Your task to perform on an android device: Search for the best 4K TV Image 0: 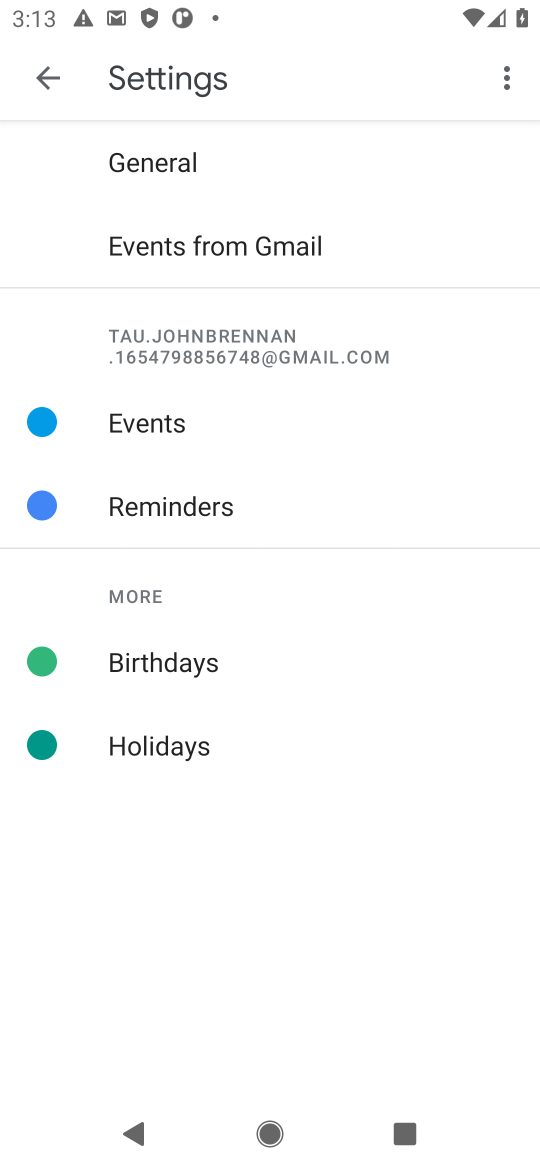
Step 0: press home button
Your task to perform on an android device: Search for the best 4K TV Image 1: 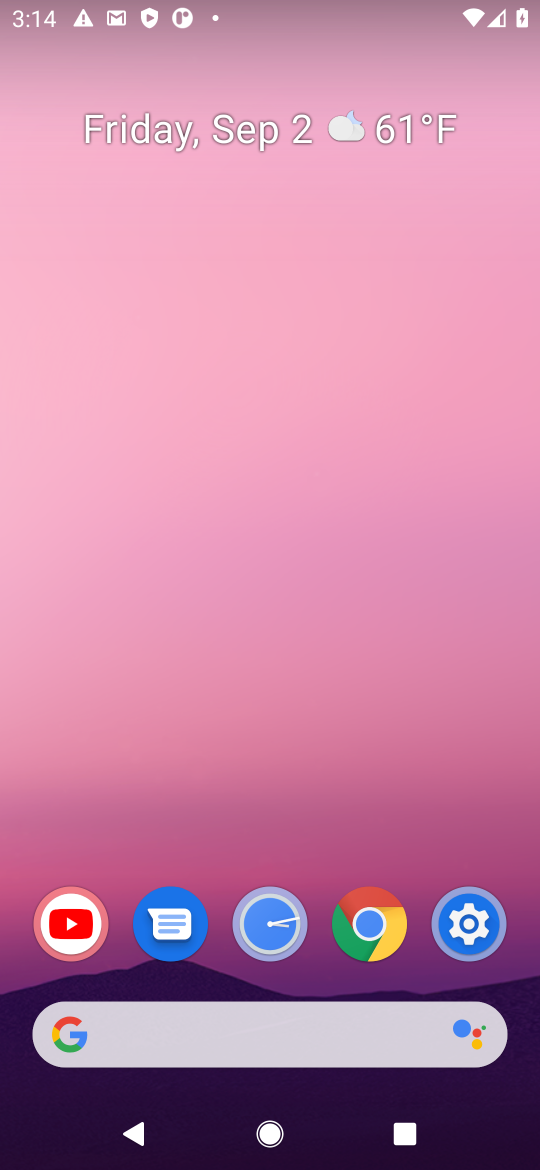
Step 1: click (367, 1046)
Your task to perform on an android device: Search for the best 4K TV Image 2: 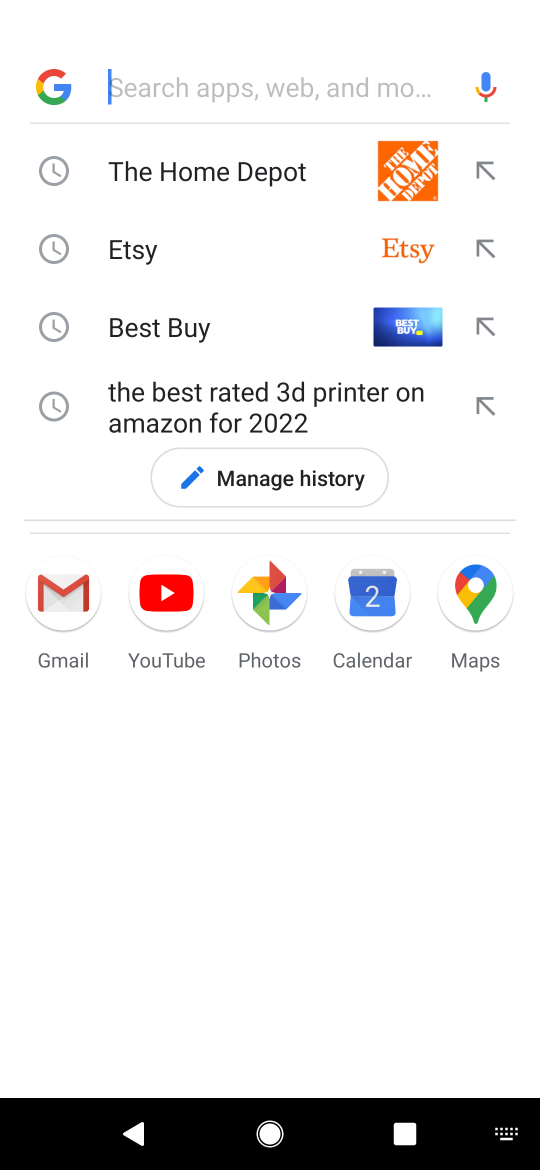
Step 2: press enter
Your task to perform on an android device: Search for the best 4K TV Image 3: 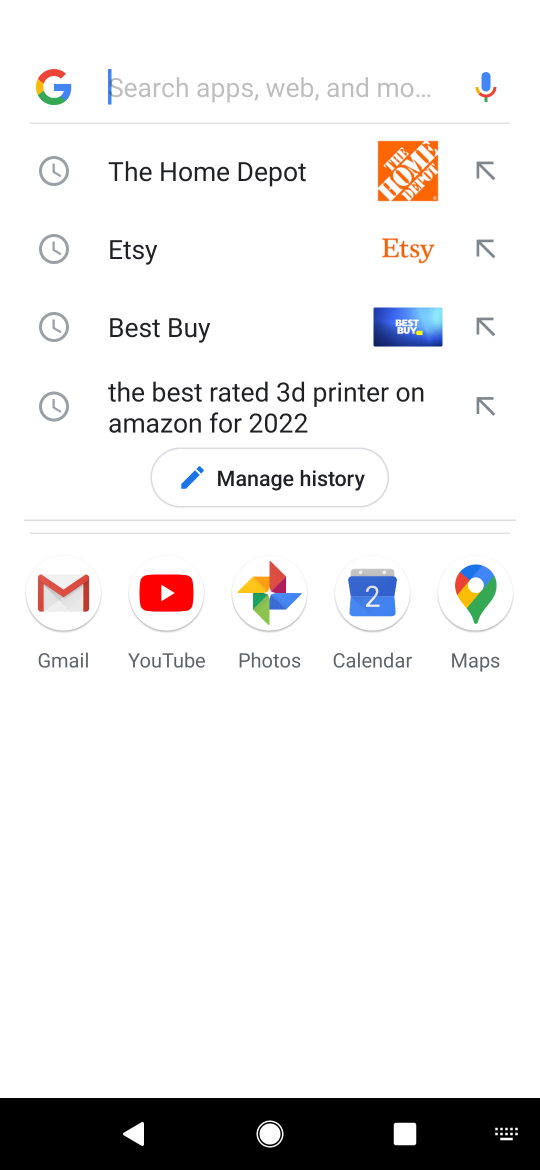
Step 3: type "best 4k tv"
Your task to perform on an android device: Search for the best 4K TV Image 4: 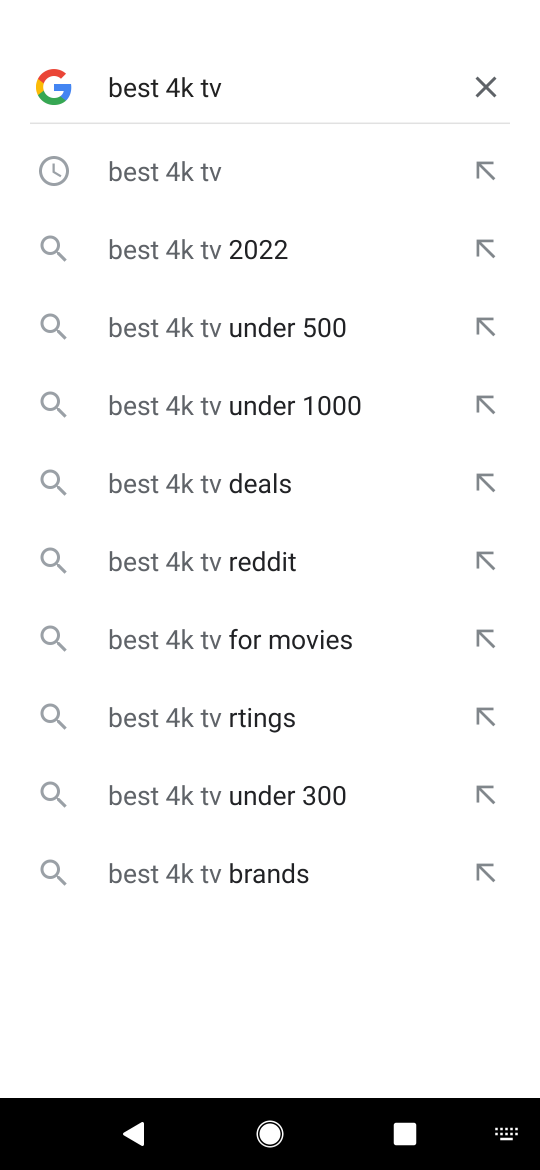
Step 4: click (209, 163)
Your task to perform on an android device: Search for the best 4K TV Image 5: 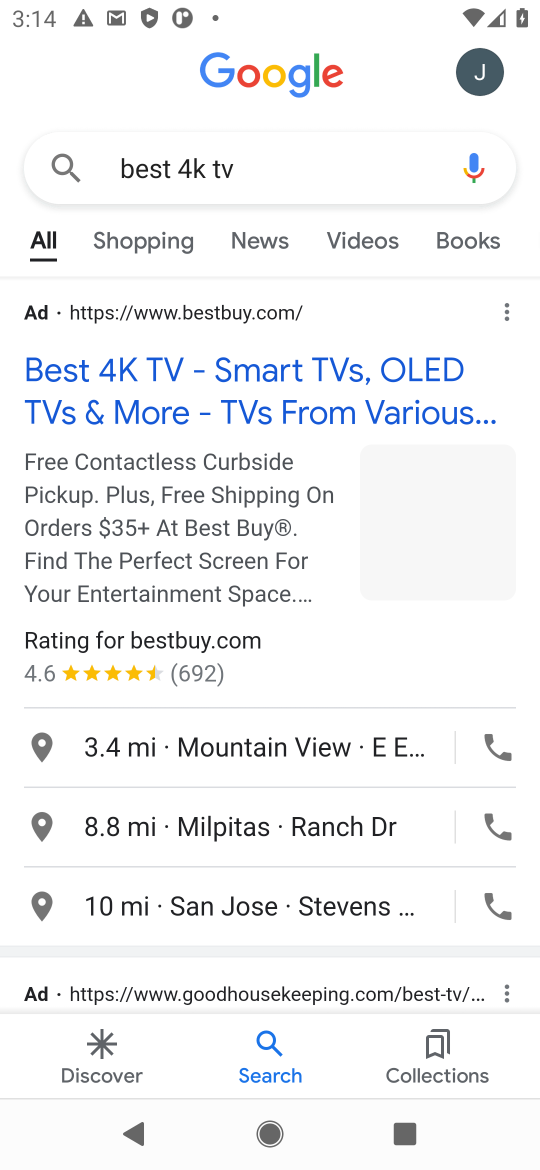
Step 5: click (351, 391)
Your task to perform on an android device: Search for the best 4K TV Image 6: 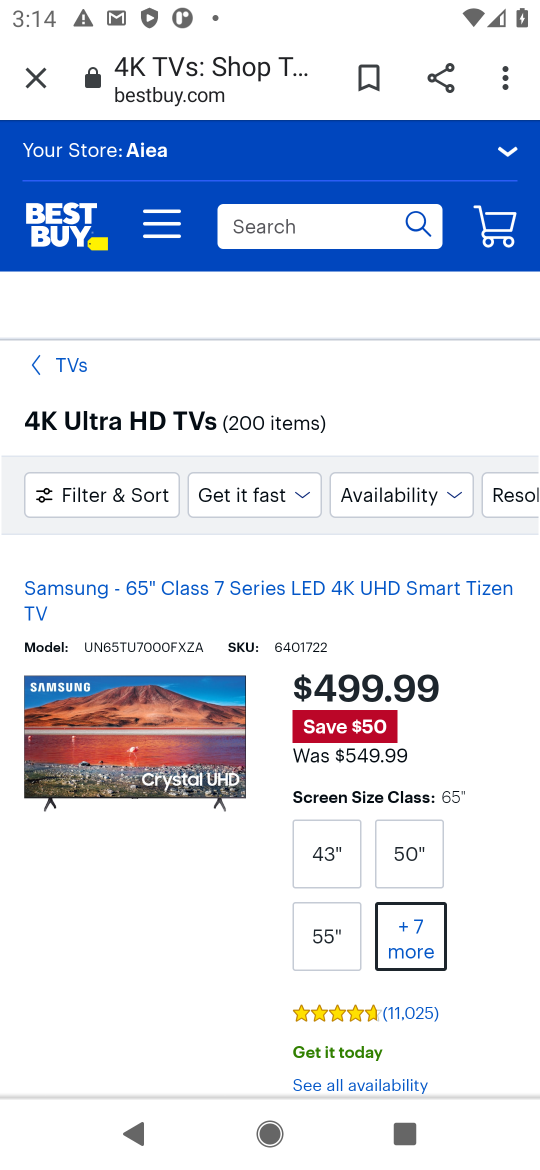
Step 6: task complete